Your task to perform on an android device: turn off translation in the chrome app Image 0: 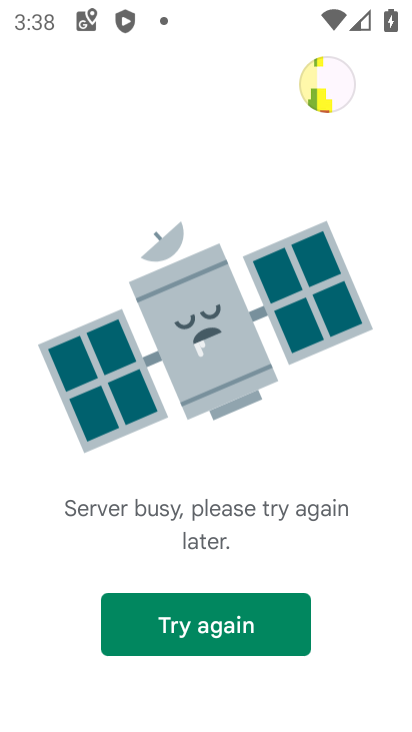
Step 0: press home button
Your task to perform on an android device: turn off translation in the chrome app Image 1: 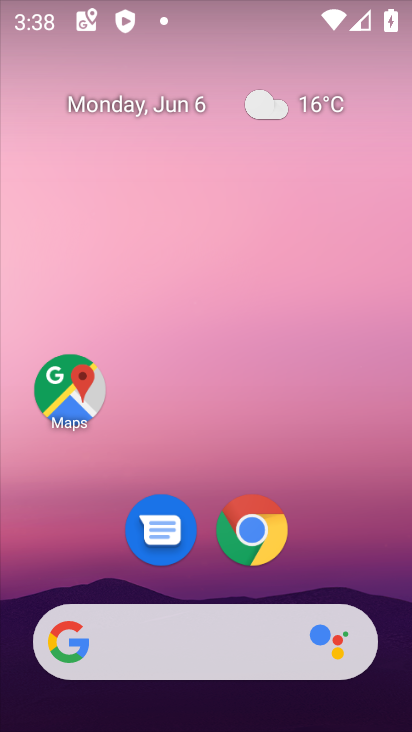
Step 1: click (248, 525)
Your task to perform on an android device: turn off translation in the chrome app Image 2: 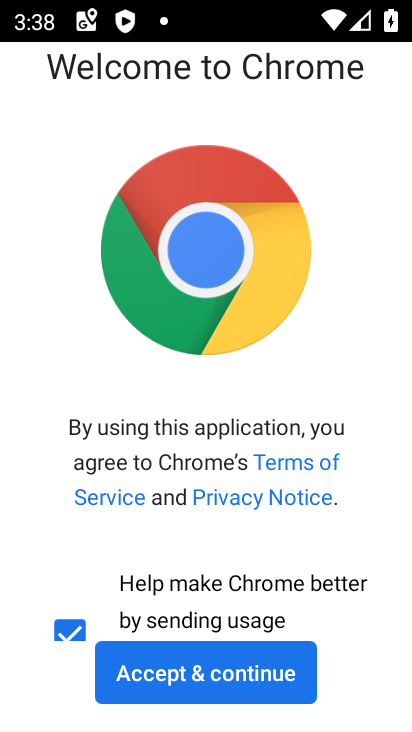
Step 2: click (270, 669)
Your task to perform on an android device: turn off translation in the chrome app Image 3: 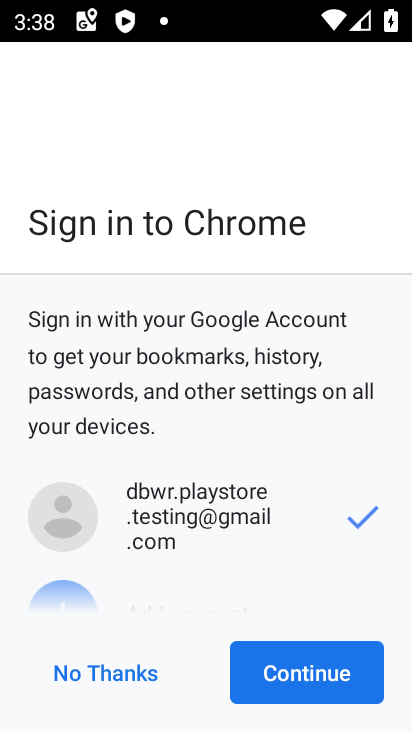
Step 3: click (296, 678)
Your task to perform on an android device: turn off translation in the chrome app Image 4: 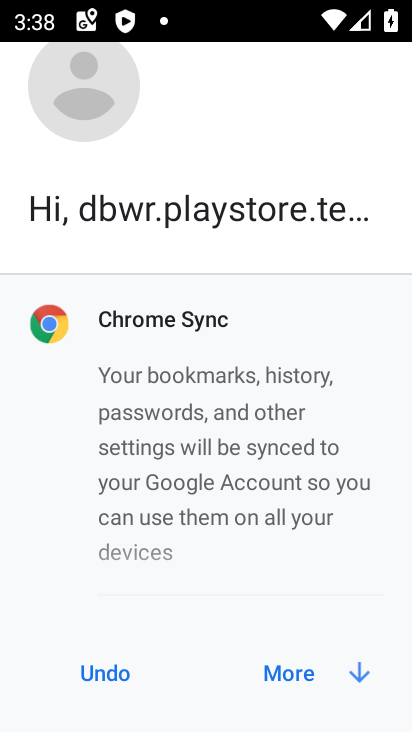
Step 4: click (296, 678)
Your task to perform on an android device: turn off translation in the chrome app Image 5: 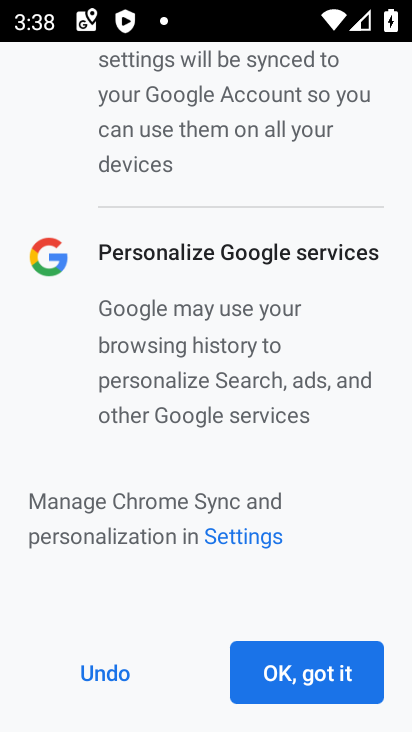
Step 5: click (296, 678)
Your task to perform on an android device: turn off translation in the chrome app Image 6: 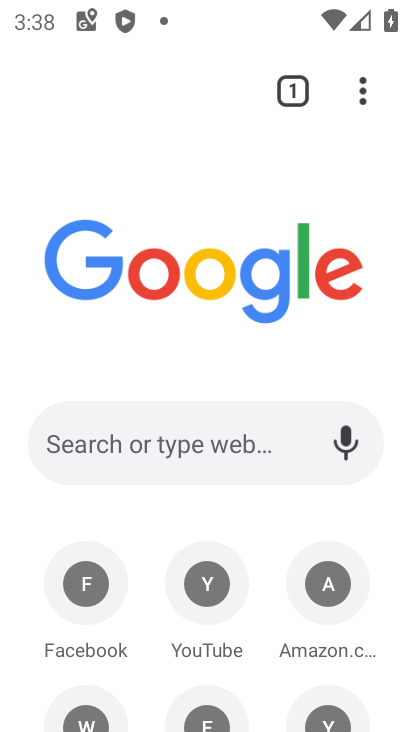
Step 6: click (363, 86)
Your task to perform on an android device: turn off translation in the chrome app Image 7: 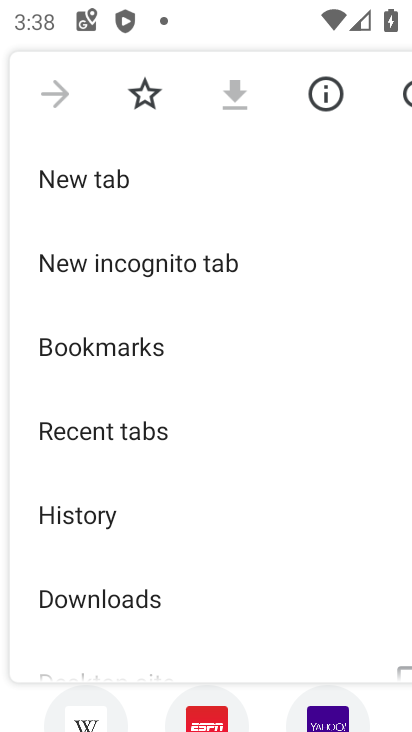
Step 7: drag from (254, 582) to (304, 225)
Your task to perform on an android device: turn off translation in the chrome app Image 8: 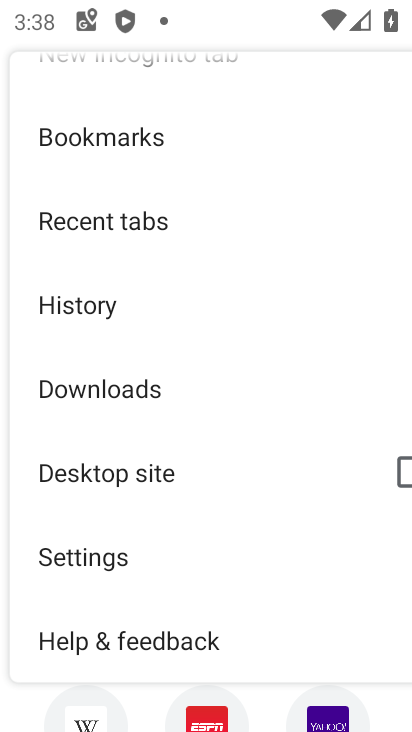
Step 8: click (229, 568)
Your task to perform on an android device: turn off translation in the chrome app Image 9: 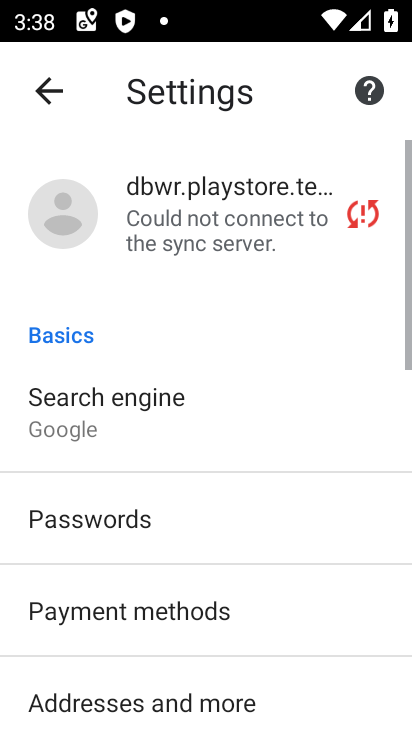
Step 9: drag from (228, 567) to (196, 267)
Your task to perform on an android device: turn off translation in the chrome app Image 10: 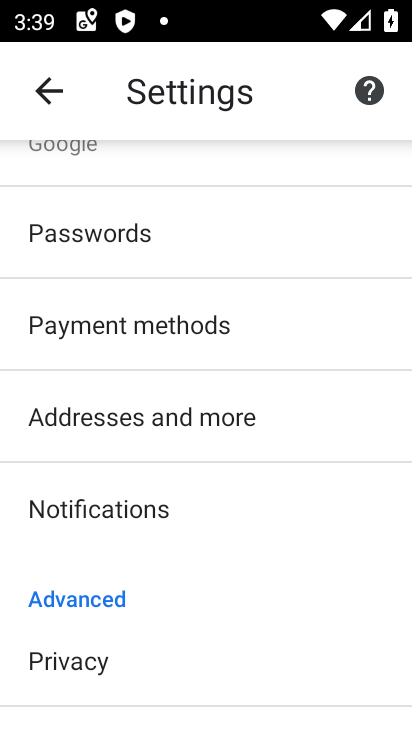
Step 10: drag from (183, 629) to (217, 300)
Your task to perform on an android device: turn off translation in the chrome app Image 11: 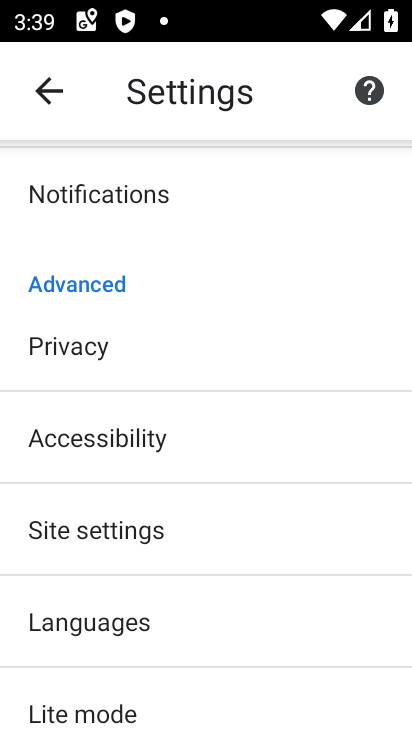
Step 11: click (229, 598)
Your task to perform on an android device: turn off translation in the chrome app Image 12: 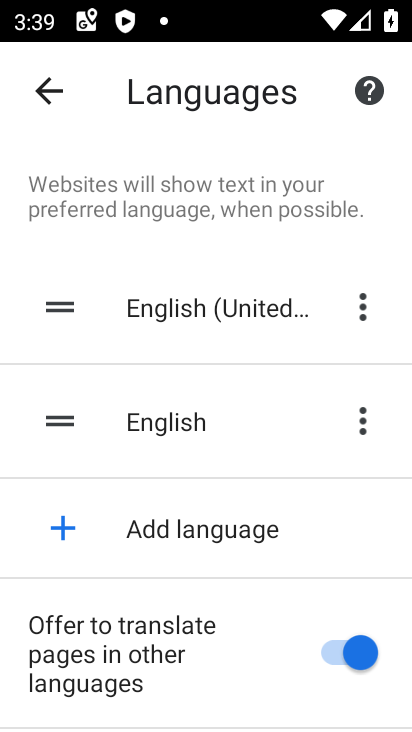
Step 12: click (361, 650)
Your task to perform on an android device: turn off translation in the chrome app Image 13: 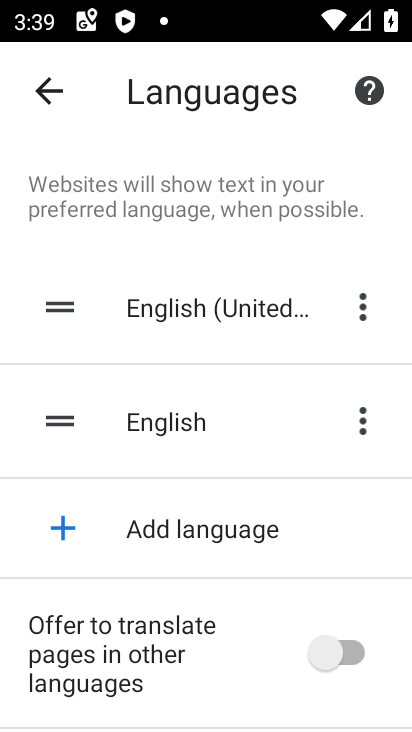
Step 13: task complete